Your task to perform on an android device: change the upload size in google photos Image 0: 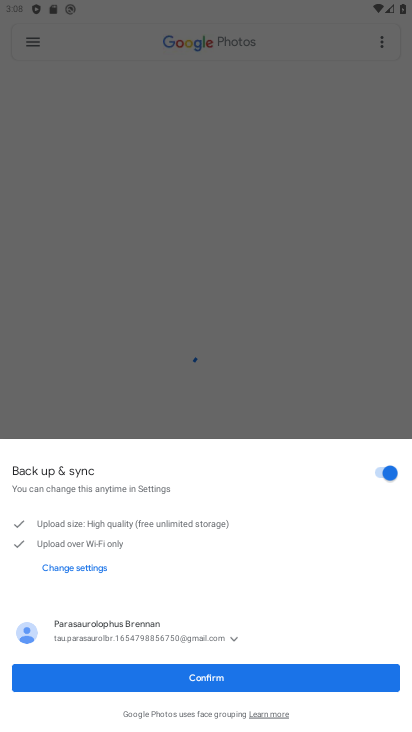
Step 0: press home button
Your task to perform on an android device: change the upload size in google photos Image 1: 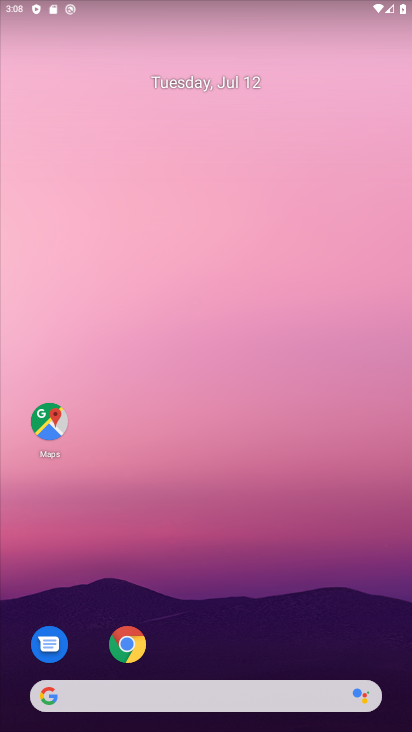
Step 1: drag from (326, 603) to (251, 56)
Your task to perform on an android device: change the upload size in google photos Image 2: 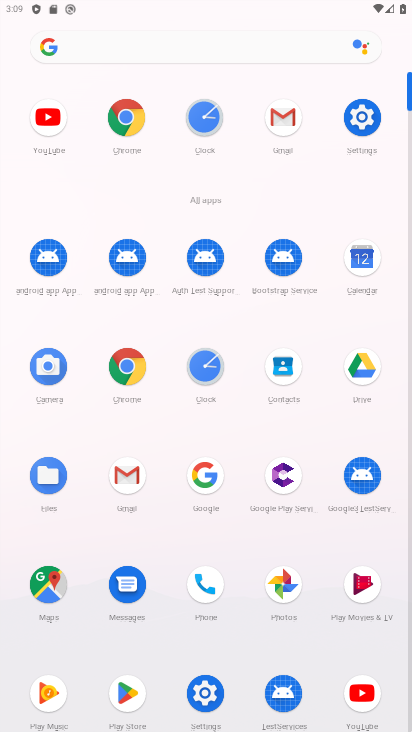
Step 2: click (292, 575)
Your task to perform on an android device: change the upload size in google photos Image 3: 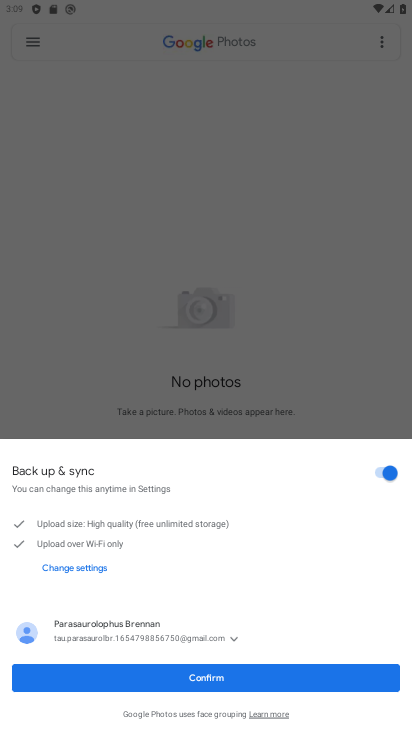
Step 3: click (332, 677)
Your task to perform on an android device: change the upload size in google photos Image 4: 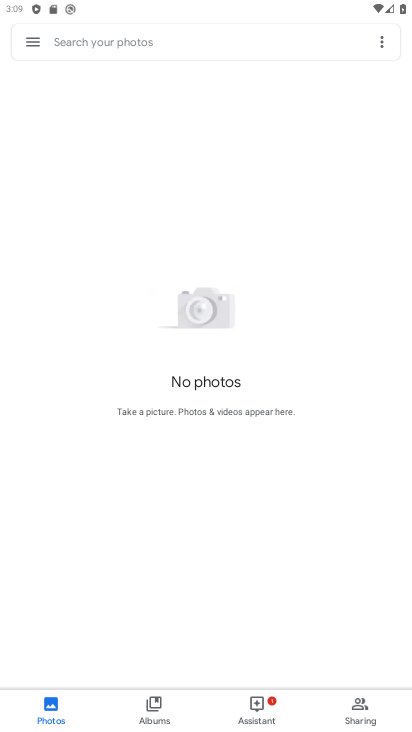
Step 4: click (22, 38)
Your task to perform on an android device: change the upload size in google photos Image 5: 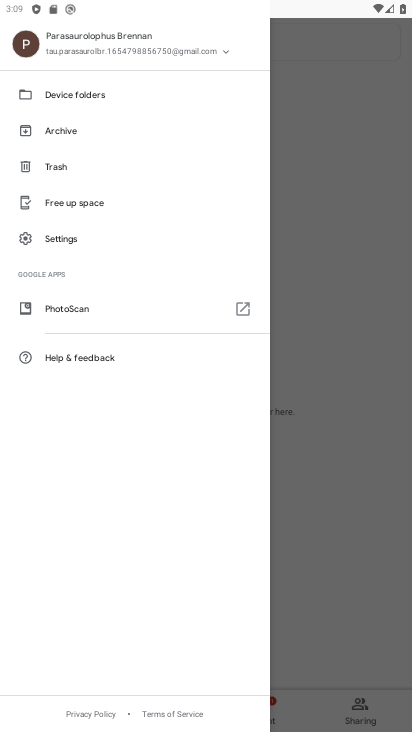
Step 5: click (60, 240)
Your task to perform on an android device: change the upload size in google photos Image 6: 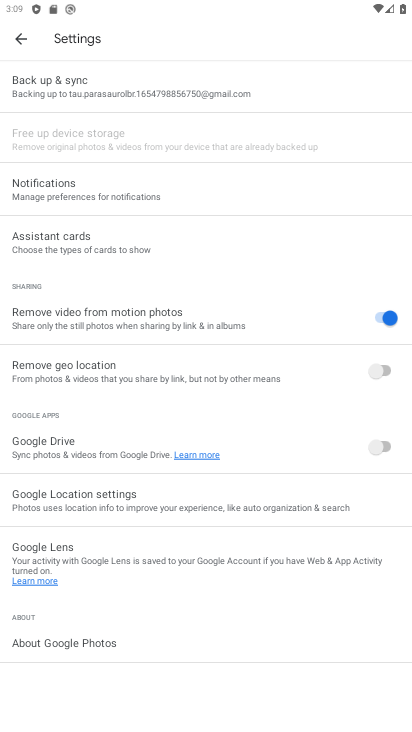
Step 6: click (152, 93)
Your task to perform on an android device: change the upload size in google photos Image 7: 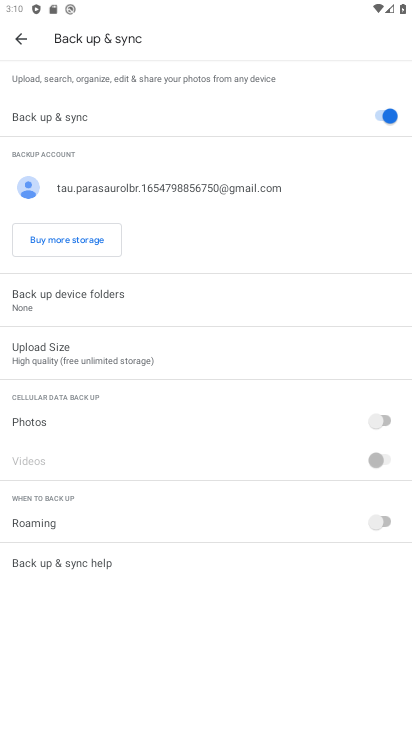
Step 7: click (96, 350)
Your task to perform on an android device: change the upload size in google photos Image 8: 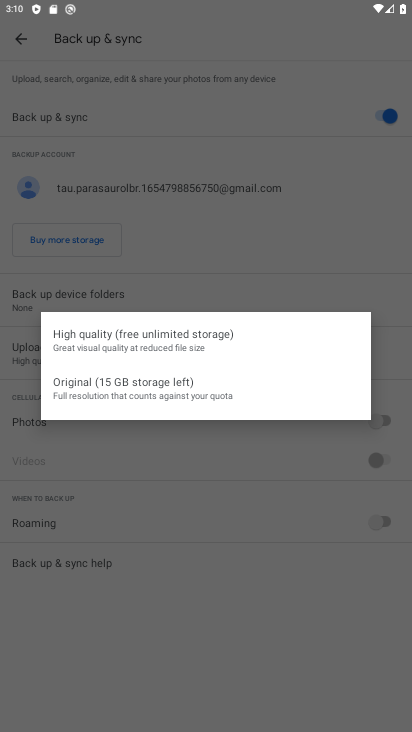
Step 8: click (144, 400)
Your task to perform on an android device: change the upload size in google photos Image 9: 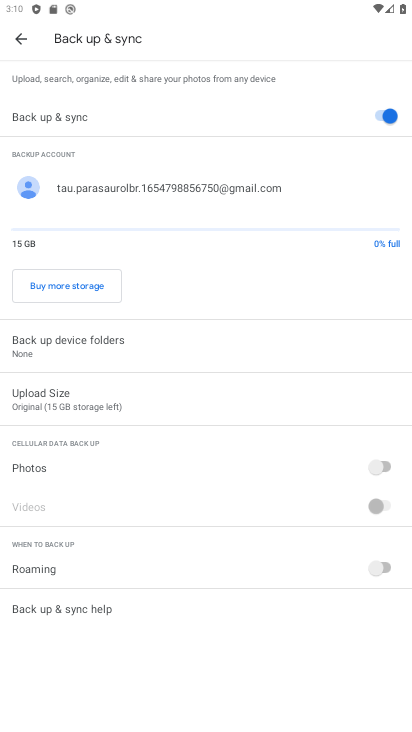
Step 9: task complete